Your task to perform on an android device: uninstall "PUBG MOBILE" Image 0: 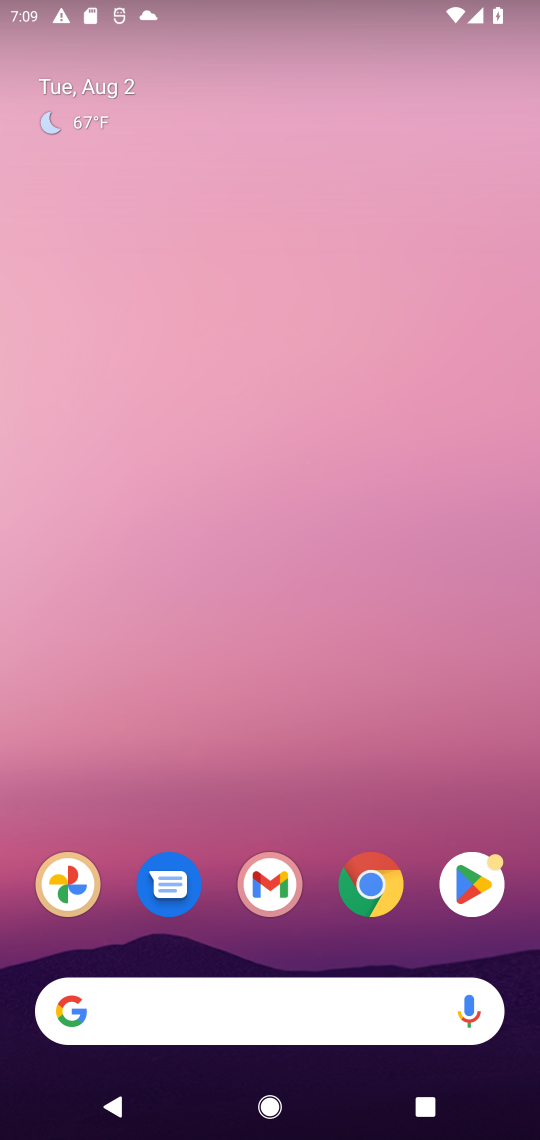
Step 0: press home button
Your task to perform on an android device: uninstall "PUBG MOBILE" Image 1: 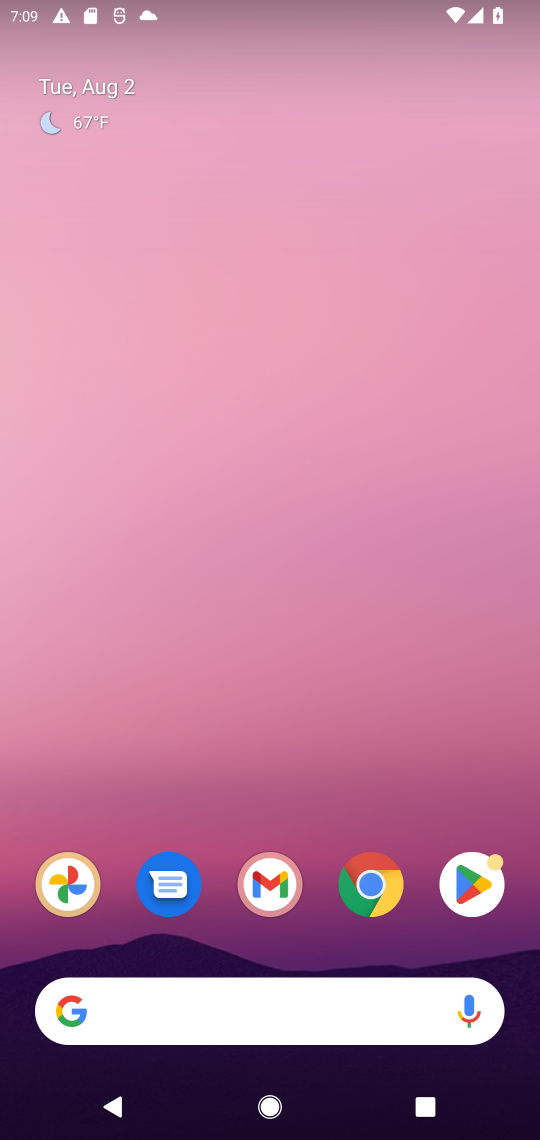
Step 1: click (437, 903)
Your task to perform on an android device: uninstall "PUBG MOBILE" Image 2: 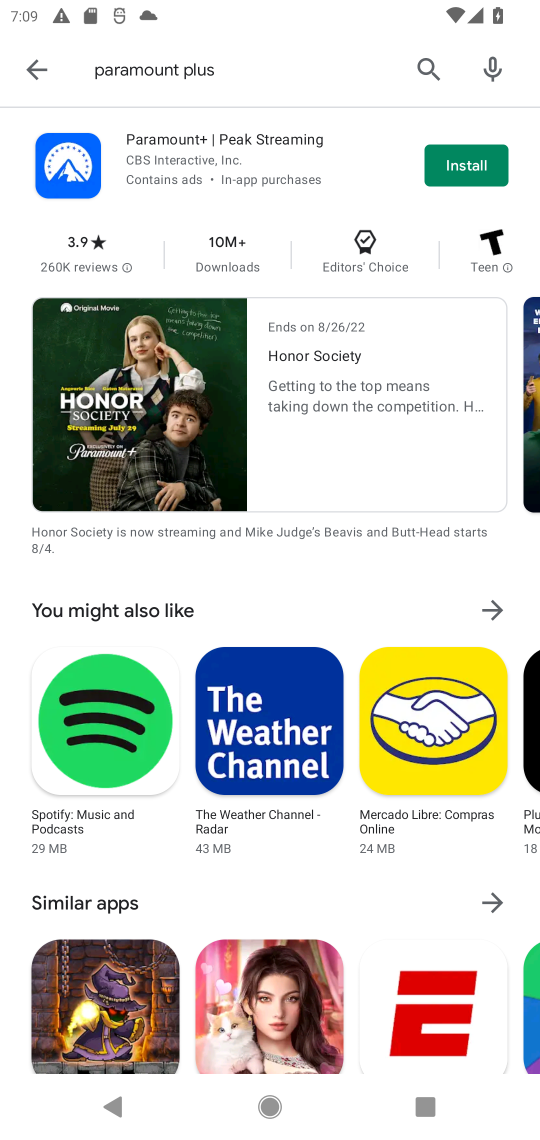
Step 2: click (410, 61)
Your task to perform on an android device: uninstall "PUBG MOBILE" Image 3: 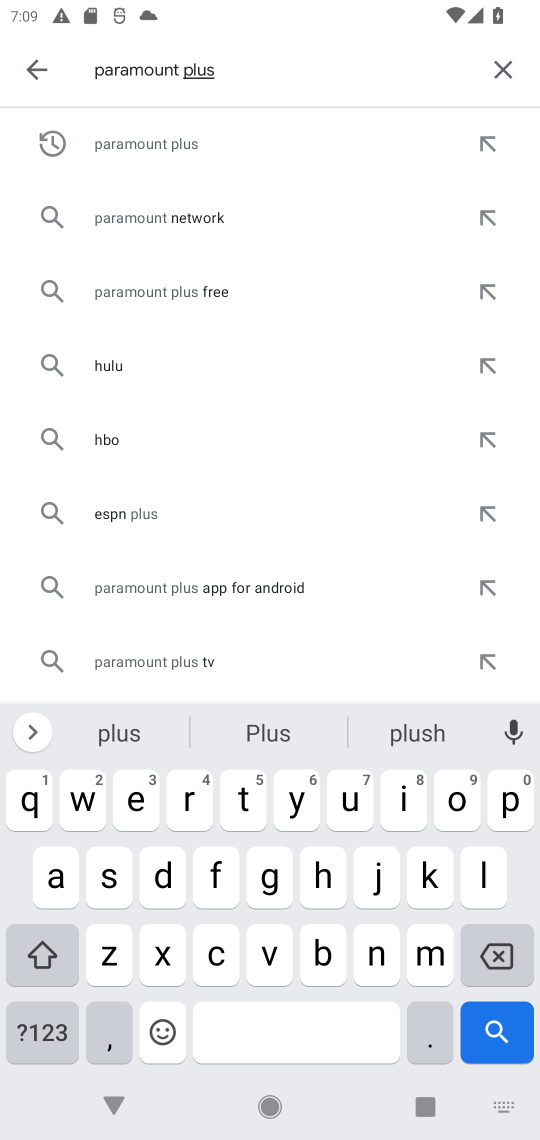
Step 3: click (508, 56)
Your task to perform on an android device: uninstall "PUBG MOBILE" Image 4: 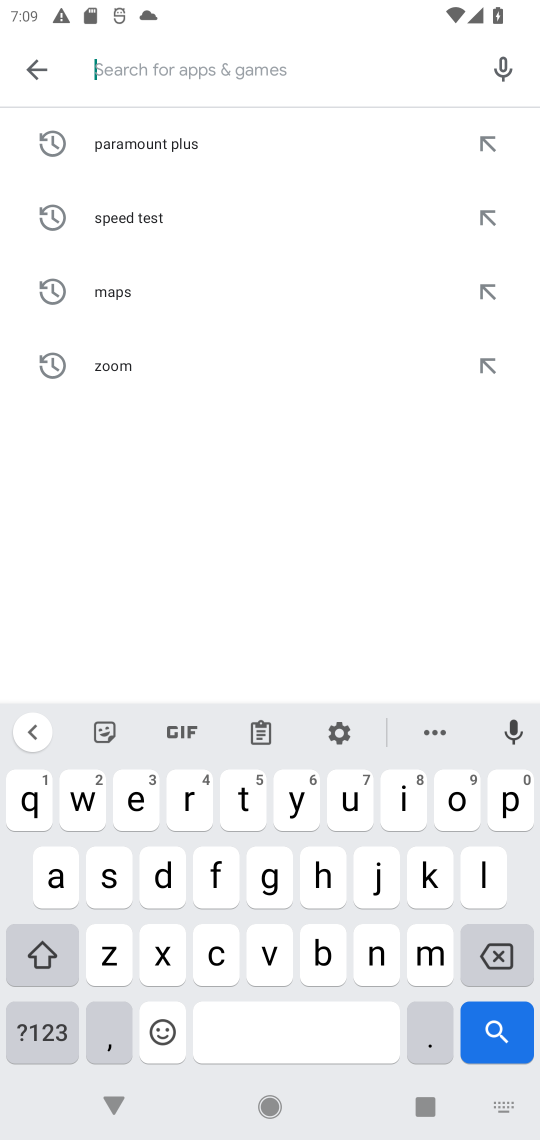
Step 4: click (511, 798)
Your task to perform on an android device: uninstall "PUBG MOBILE" Image 5: 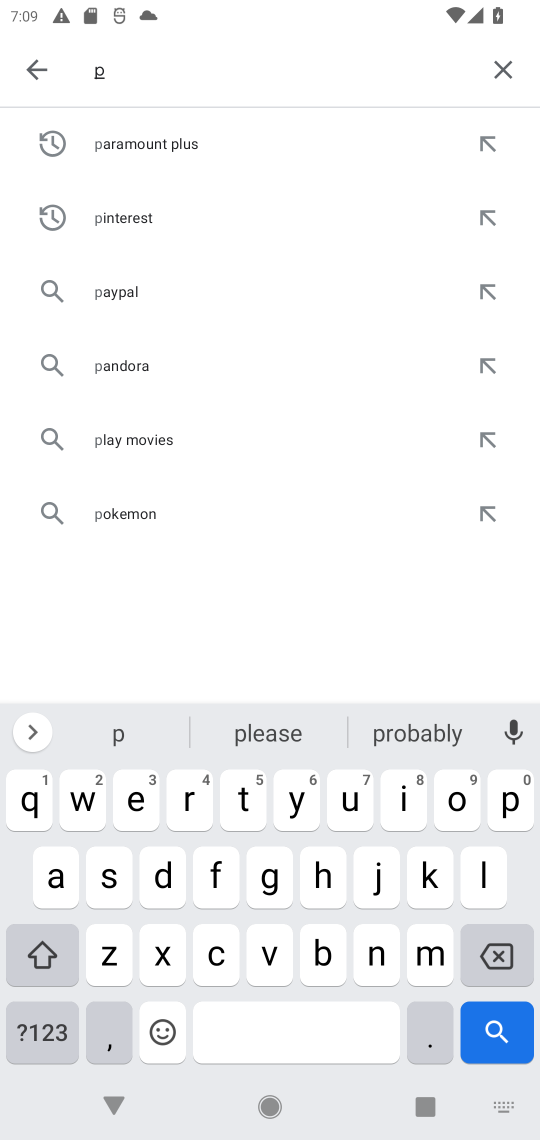
Step 5: click (350, 804)
Your task to perform on an android device: uninstall "PUBG MOBILE" Image 6: 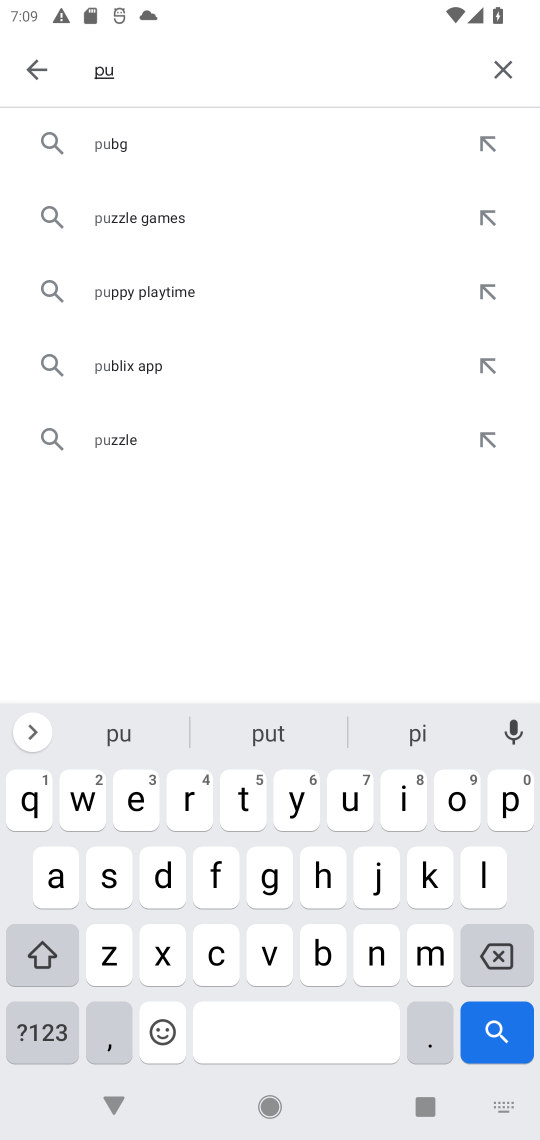
Step 6: click (316, 962)
Your task to perform on an android device: uninstall "PUBG MOBILE" Image 7: 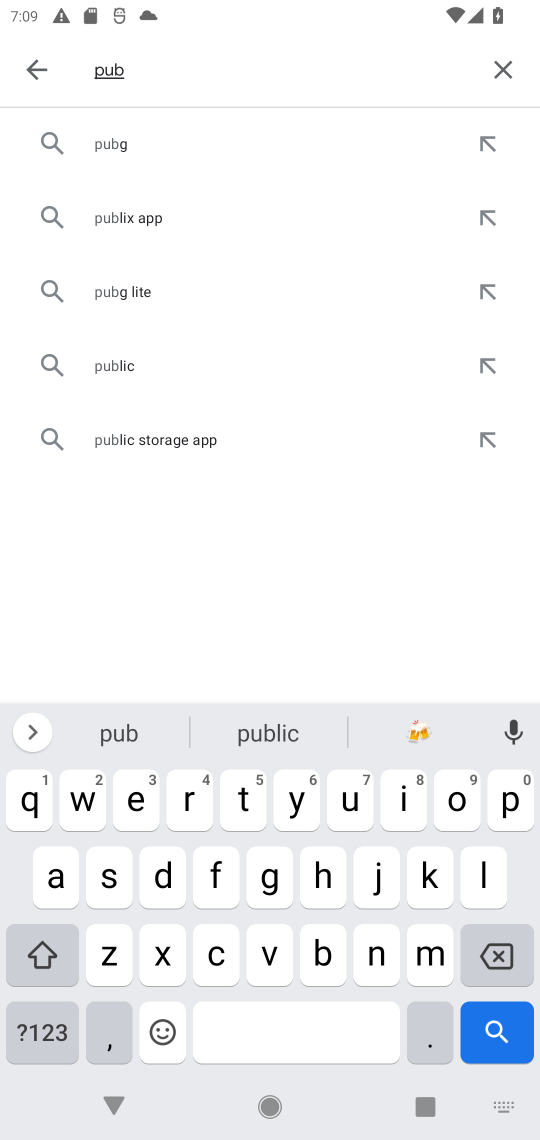
Step 7: click (262, 879)
Your task to perform on an android device: uninstall "PUBG MOBILE" Image 8: 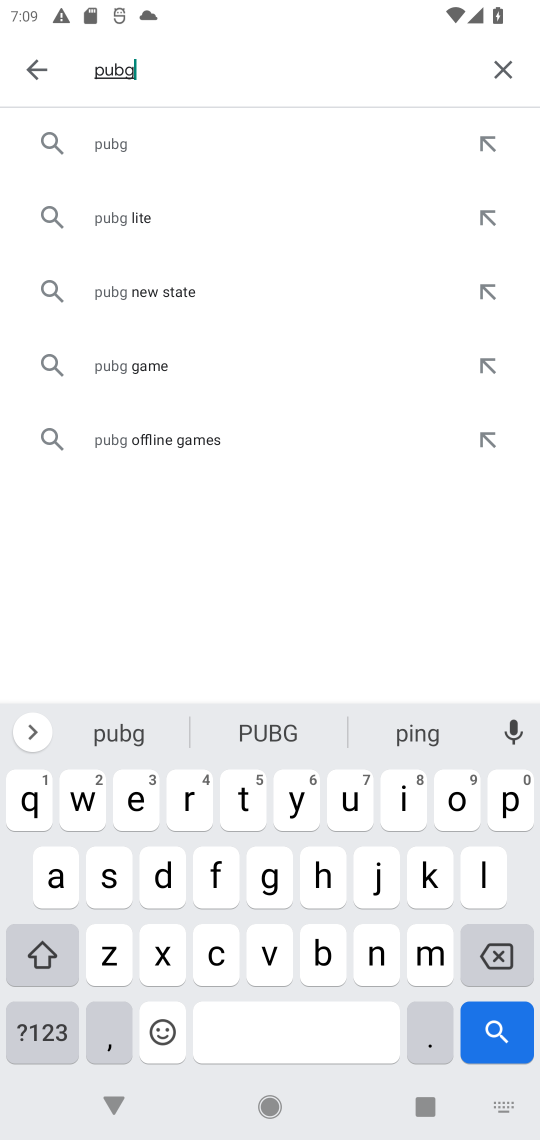
Step 8: click (287, 1034)
Your task to perform on an android device: uninstall "PUBG MOBILE" Image 9: 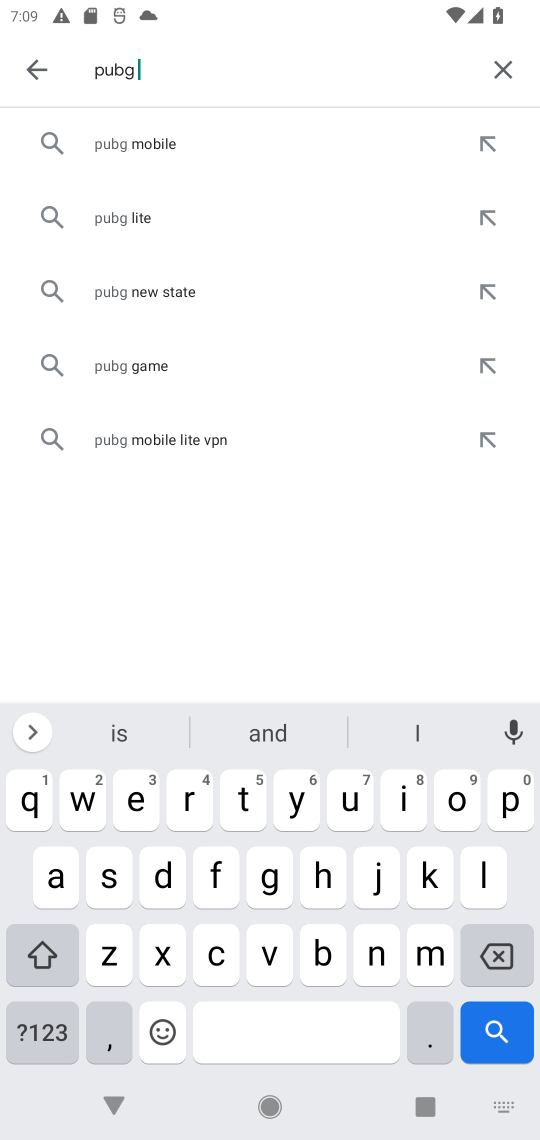
Step 9: click (431, 963)
Your task to perform on an android device: uninstall "PUBG MOBILE" Image 10: 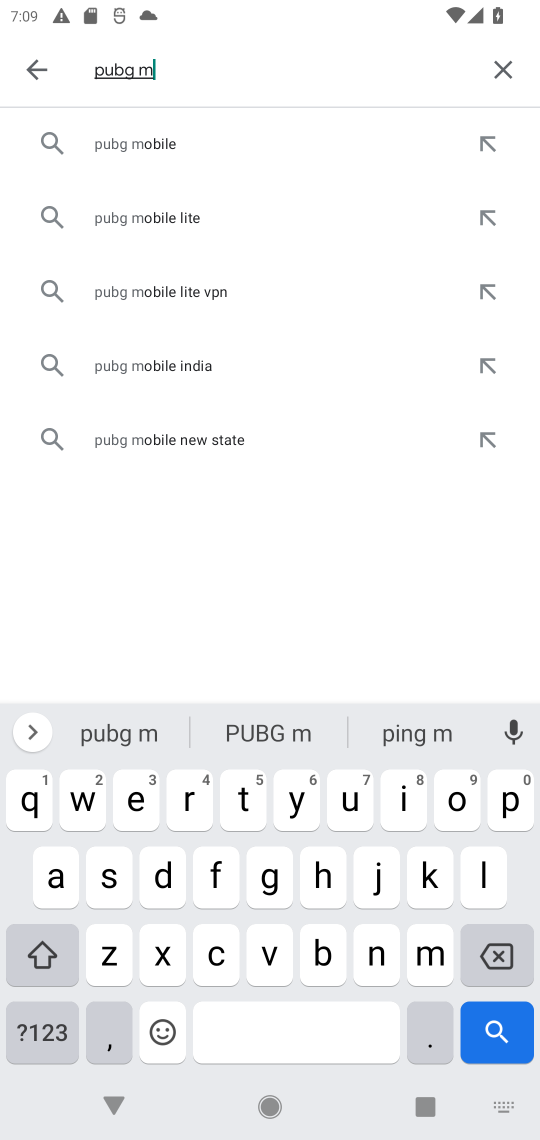
Step 10: click (172, 140)
Your task to perform on an android device: uninstall "PUBG MOBILE" Image 11: 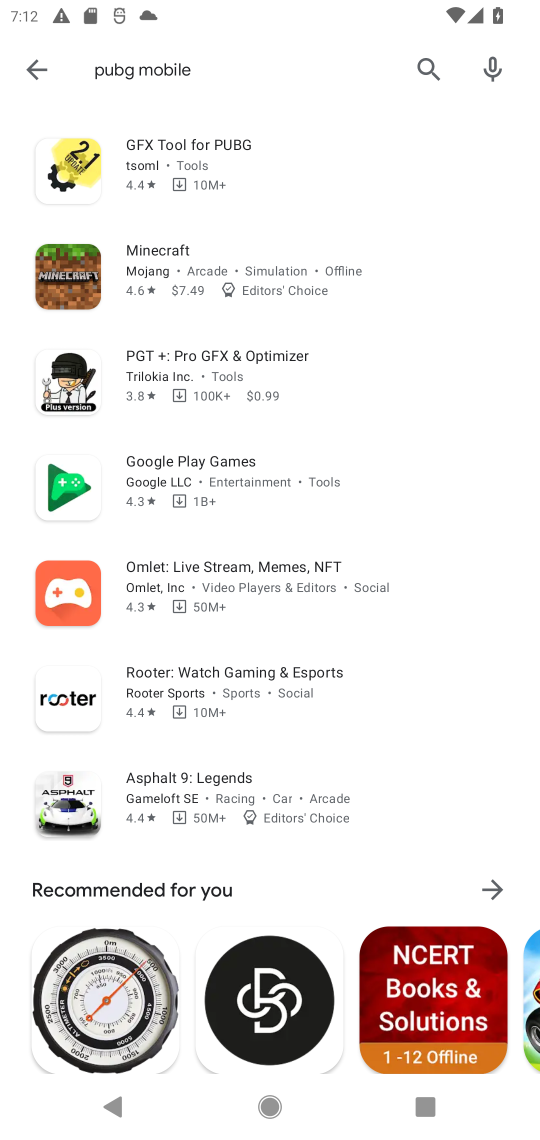
Step 11: task complete